Your task to perform on an android device: open the mobile data screen to see how much data has been used Image 0: 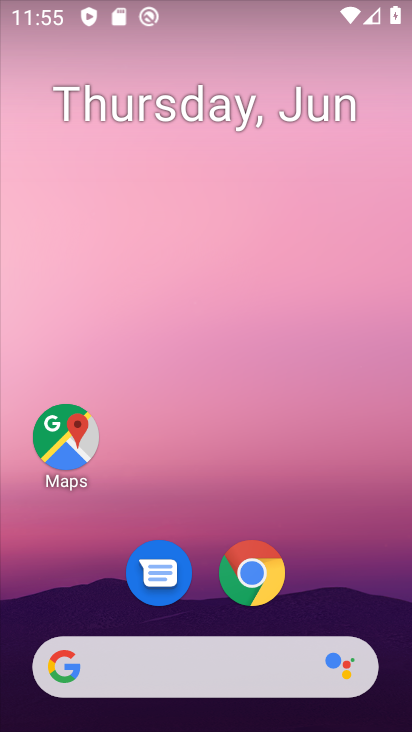
Step 0: task complete